Your task to perform on an android device: see sites visited before in the chrome app Image 0: 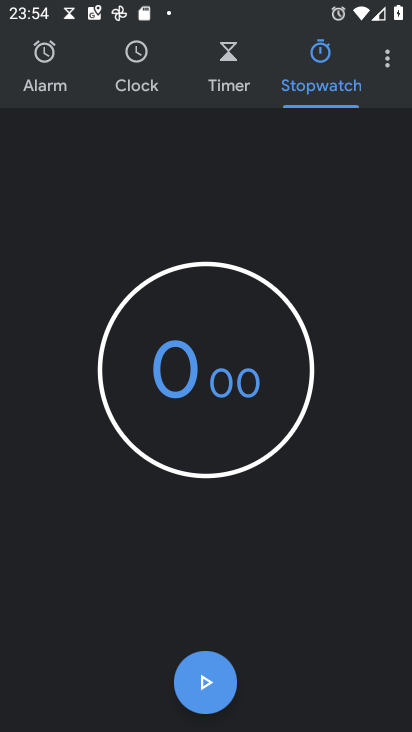
Step 0: press home button
Your task to perform on an android device: see sites visited before in the chrome app Image 1: 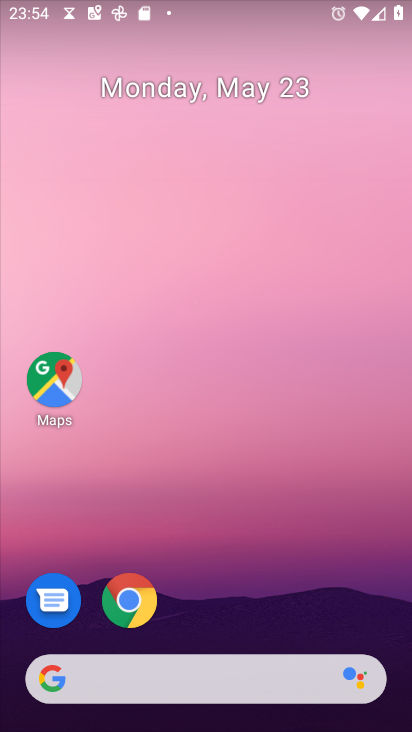
Step 1: click (138, 604)
Your task to perform on an android device: see sites visited before in the chrome app Image 2: 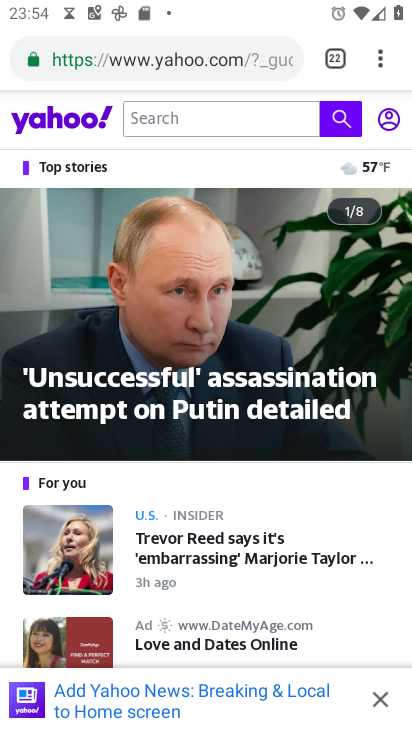
Step 2: click (383, 63)
Your task to perform on an android device: see sites visited before in the chrome app Image 3: 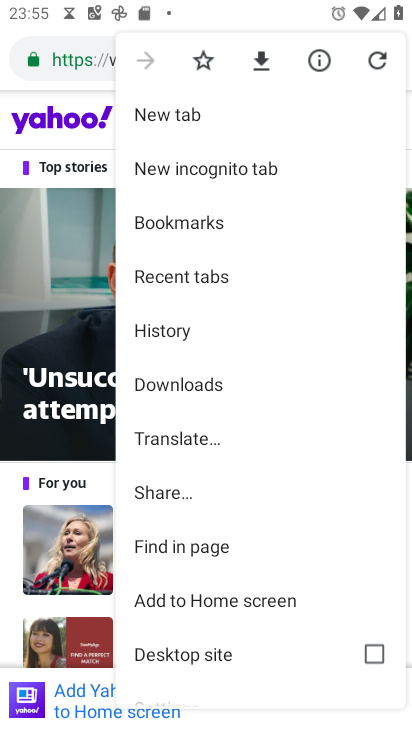
Step 3: drag from (182, 644) to (189, 326)
Your task to perform on an android device: see sites visited before in the chrome app Image 4: 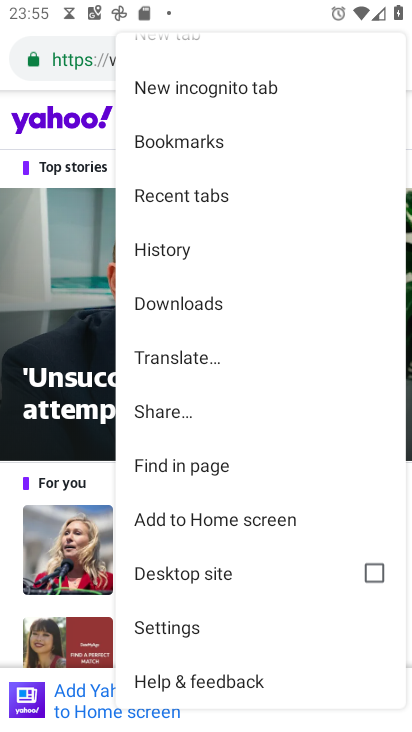
Step 4: click (175, 248)
Your task to perform on an android device: see sites visited before in the chrome app Image 5: 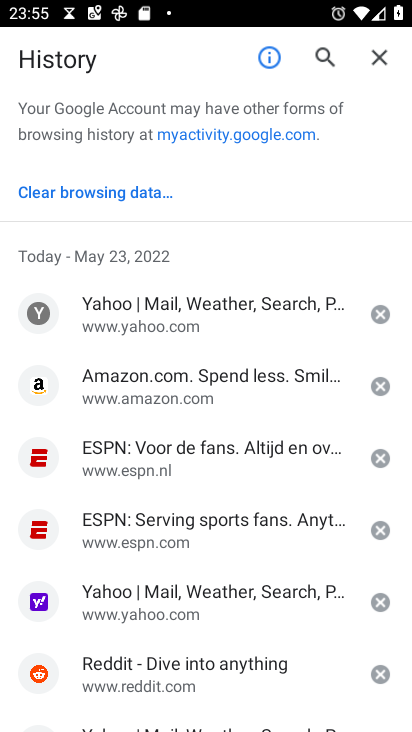
Step 5: task complete